Your task to perform on an android device: Open internet settings Image 0: 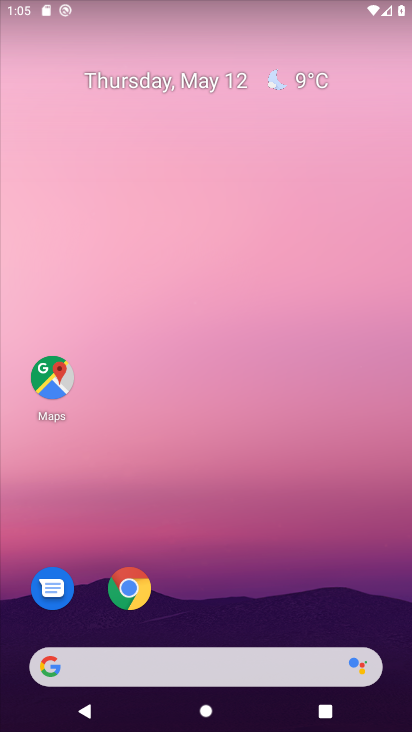
Step 0: drag from (364, 579) to (330, 57)
Your task to perform on an android device: Open internet settings Image 1: 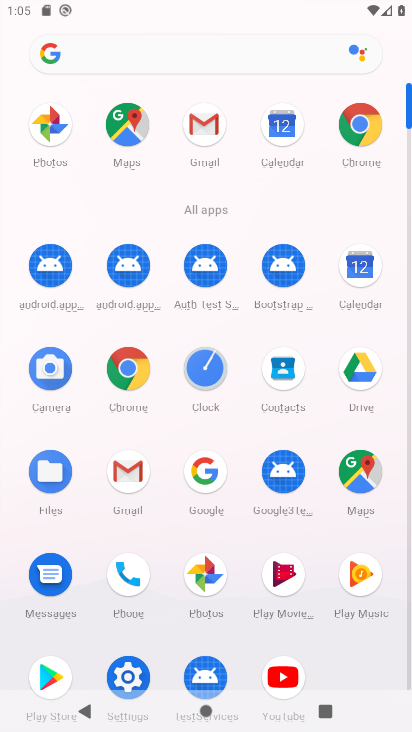
Step 1: drag from (358, 652) to (307, 258)
Your task to perform on an android device: Open internet settings Image 2: 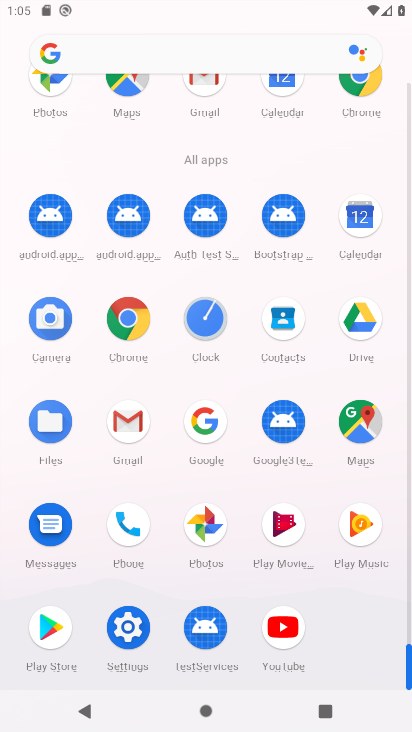
Step 2: click (134, 632)
Your task to perform on an android device: Open internet settings Image 3: 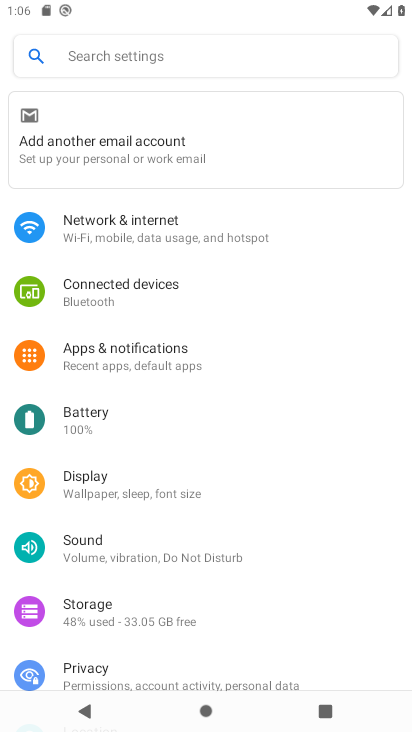
Step 3: click (131, 241)
Your task to perform on an android device: Open internet settings Image 4: 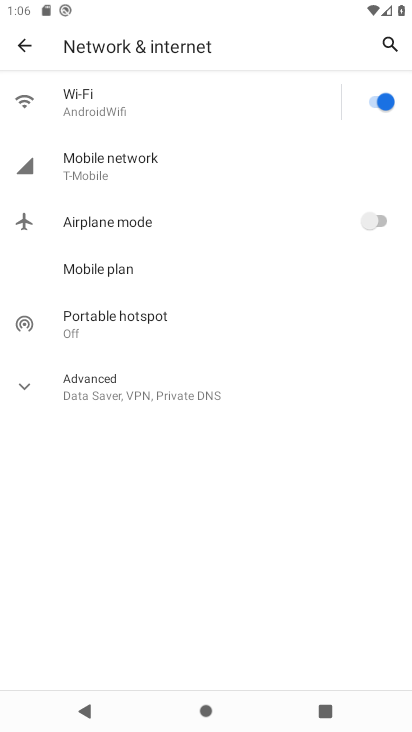
Step 4: task complete